Your task to perform on an android device: find snoozed emails in the gmail app Image 0: 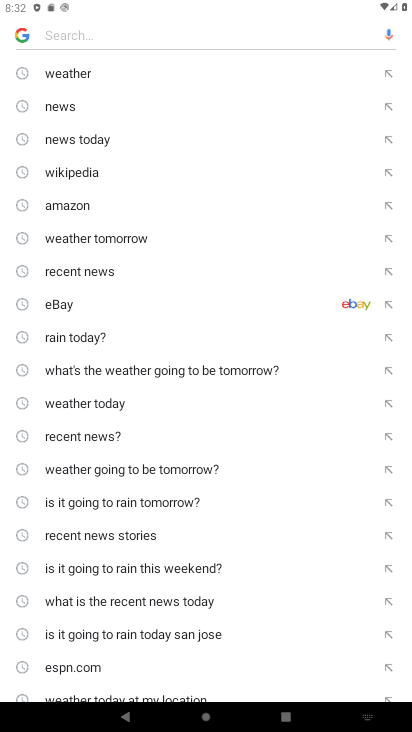
Step 0: press home button
Your task to perform on an android device: find snoozed emails in the gmail app Image 1: 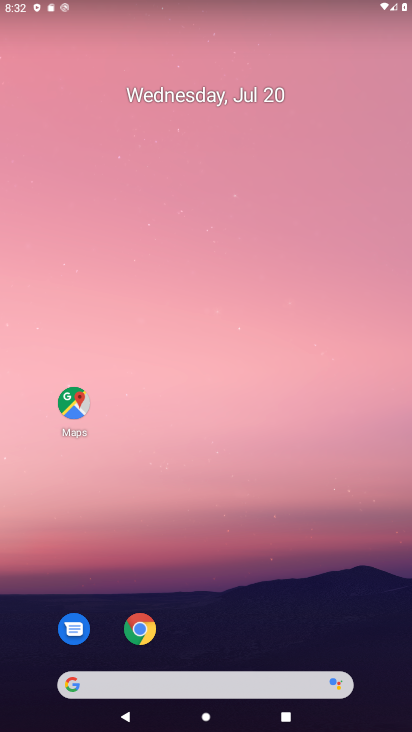
Step 1: drag from (221, 633) to (220, 67)
Your task to perform on an android device: find snoozed emails in the gmail app Image 2: 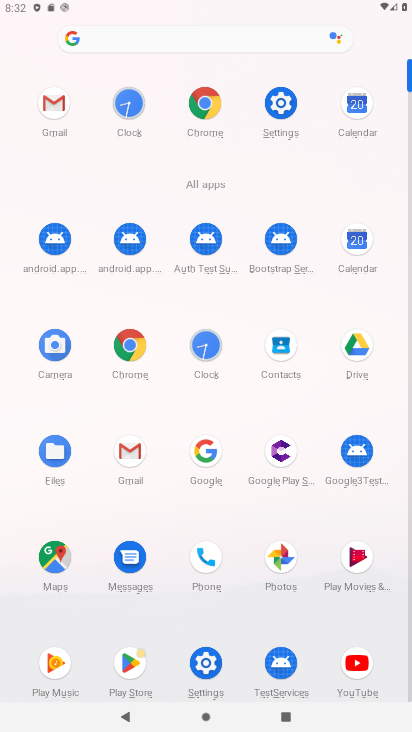
Step 2: click (67, 110)
Your task to perform on an android device: find snoozed emails in the gmail app Image 3: 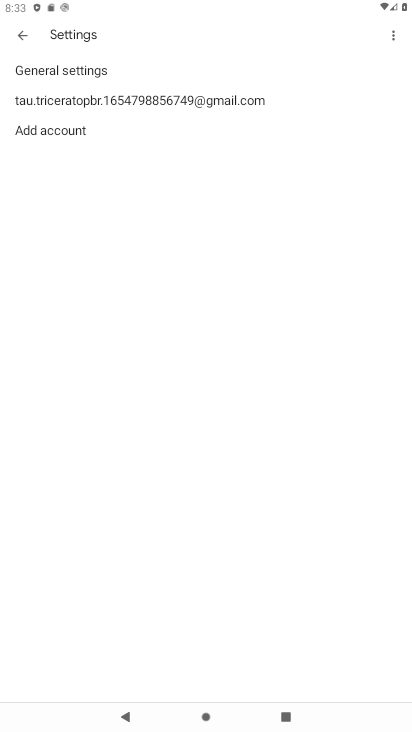
Step 3: click (21, 35)
Your task to perform on an android device: find snoozed emails in the gmail app Image 4: 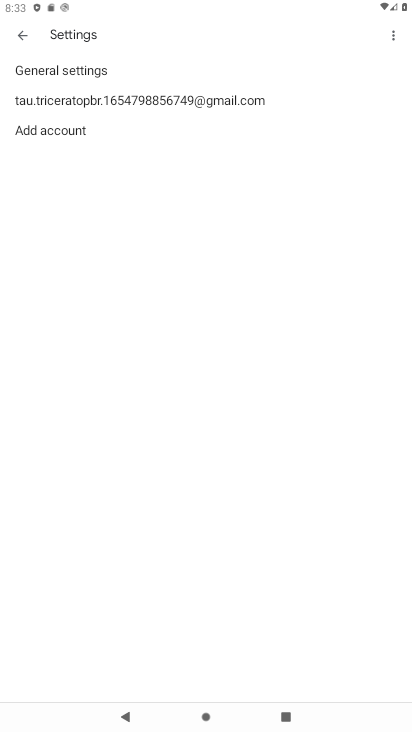
Step 4: click (21, 35)
Your task to perform on an android device: find snoozed emails in the gmail app Image 5: 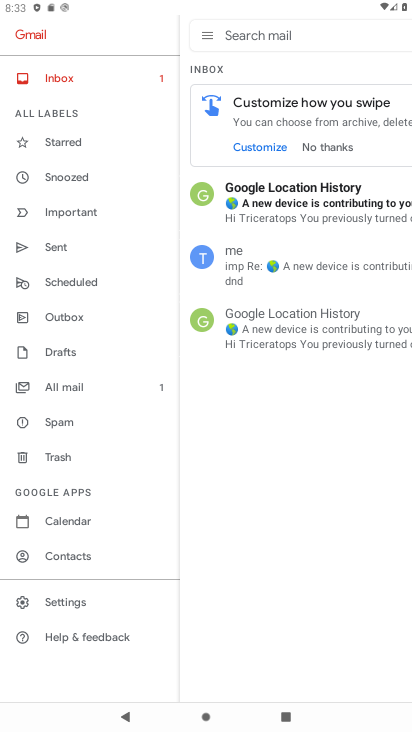
Step 5: click (103, 177)
Your task to perform on an android device: find snoozed emails in the gmail app Image 6: 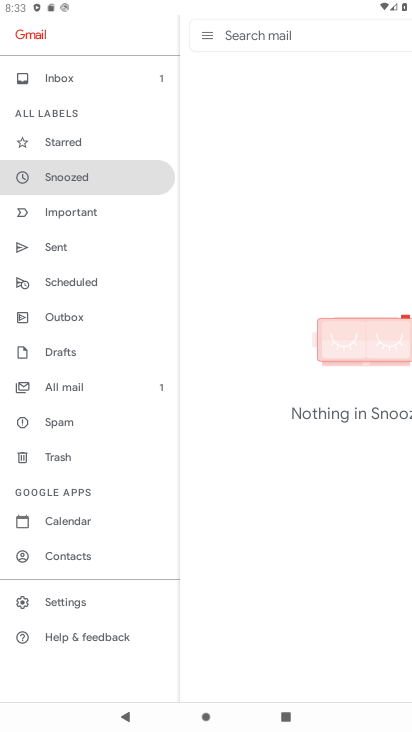
Step 6: task complete